Your task to perform on an android device: Open accessibility settings Image 0: 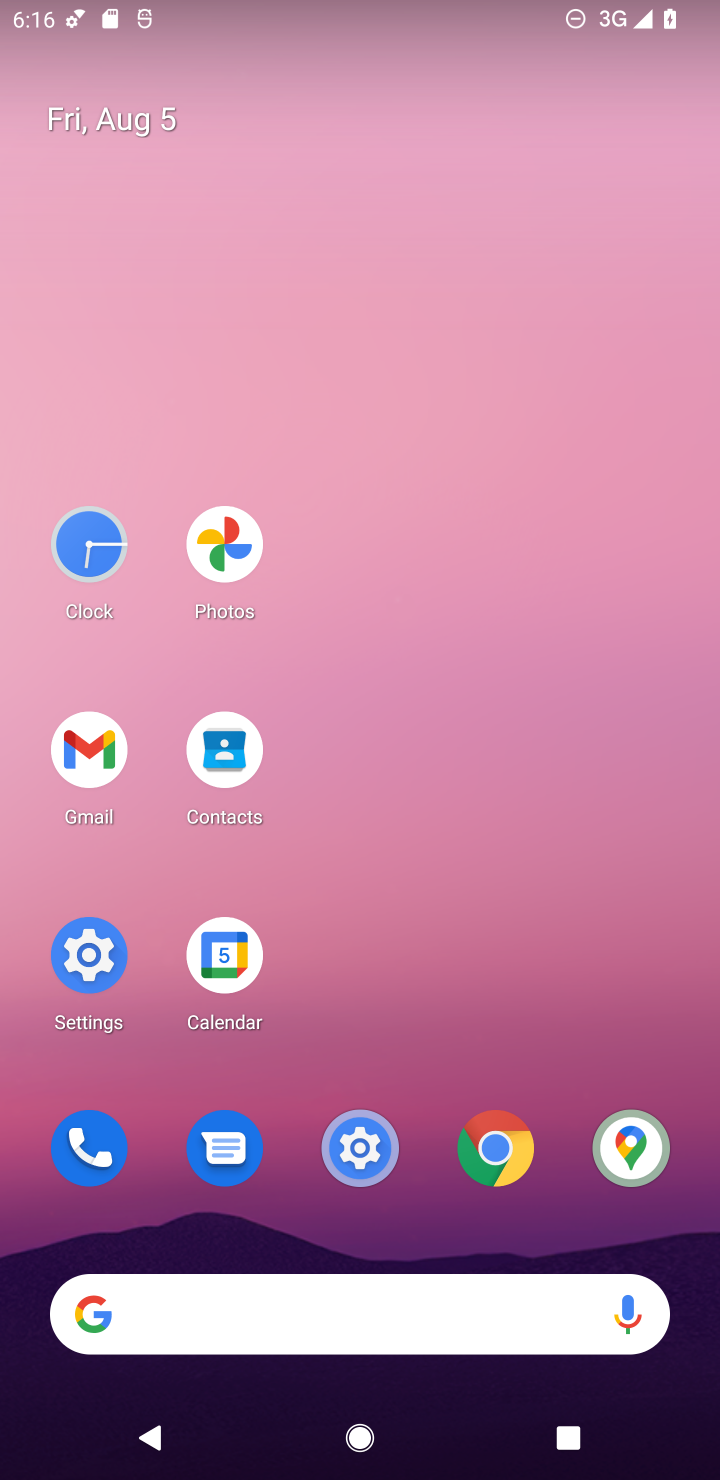
Step 0: click (360, 1154)
Your task to perform on an android device: Open accessibility settings Image 1: 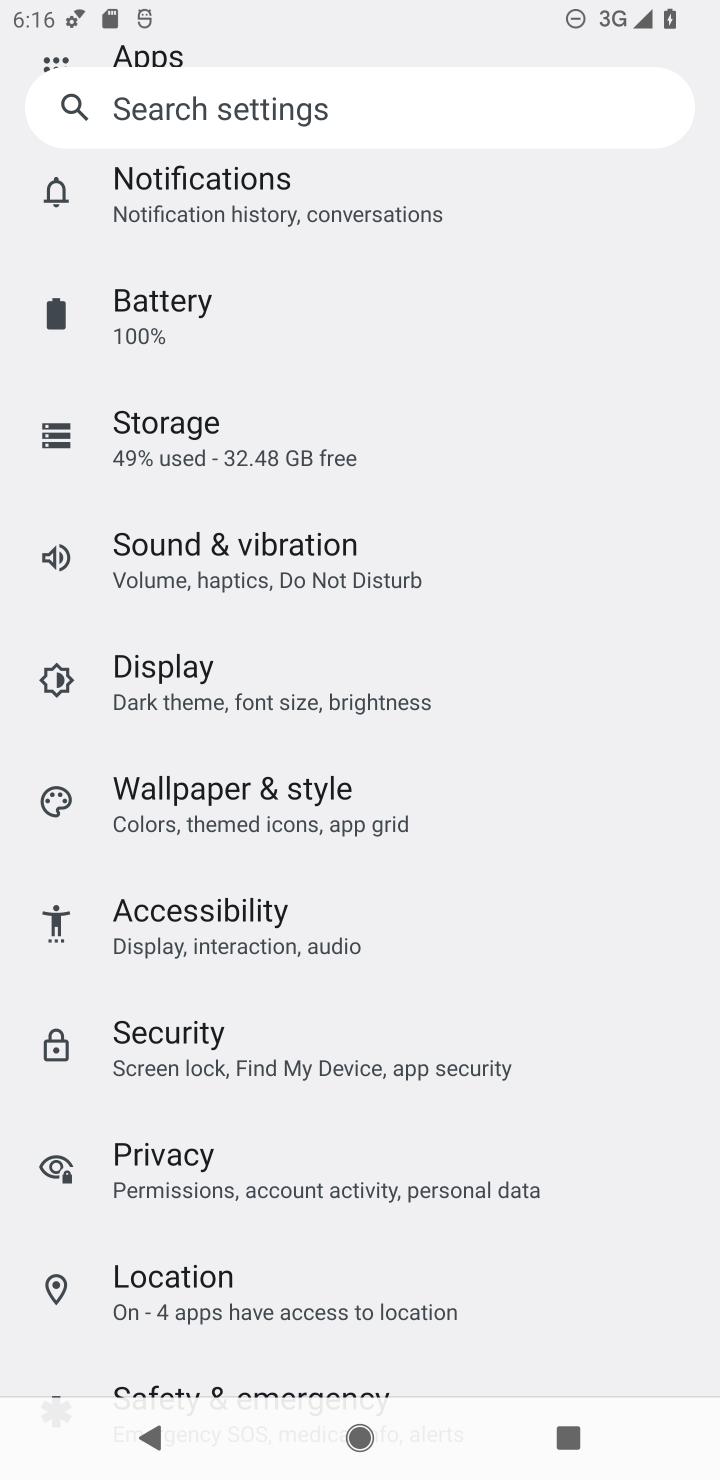
Step 1: click (249, 907)
Your task to perform on an android device: Open accessibility settings Image 2: 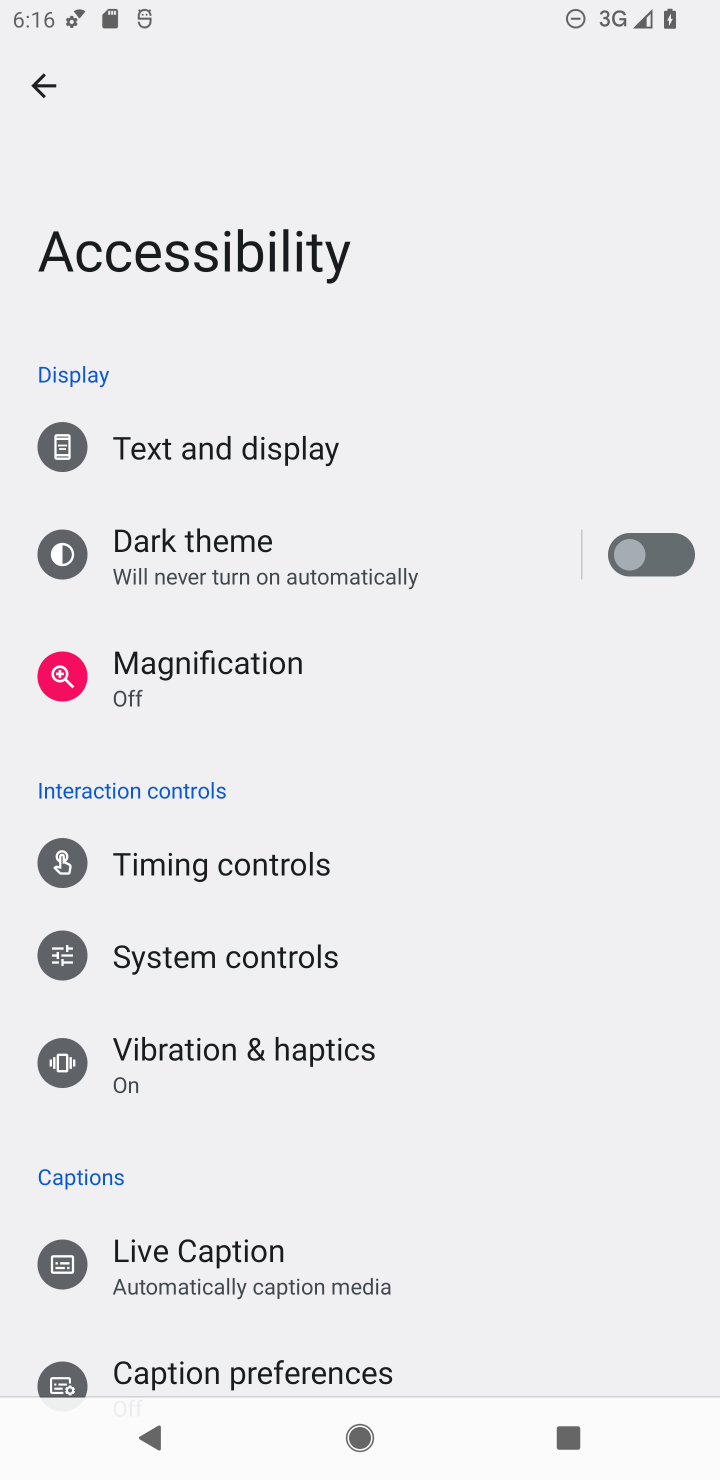
Step 2: task complete